Your task to perform on an android device: toggle airplane mode Image 0: 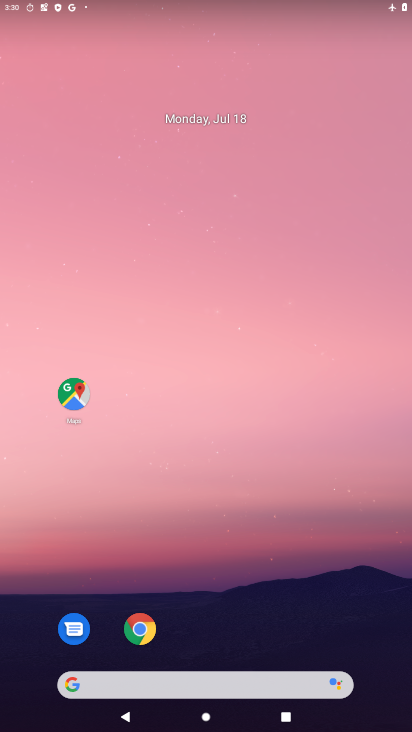
Step 0: drag from (171, 664) to (138, 96)
Your task to perform on an android device: toggle airplane mode Image 1: 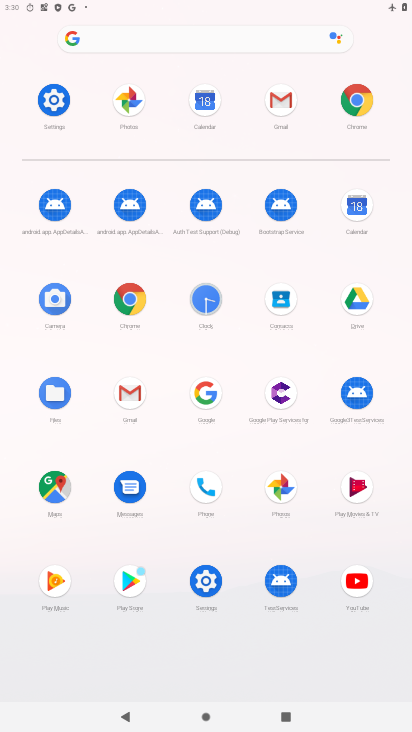
Step 1: click (62, 95)
Your task to perform on an android device: toggle airplane mode Image 2: 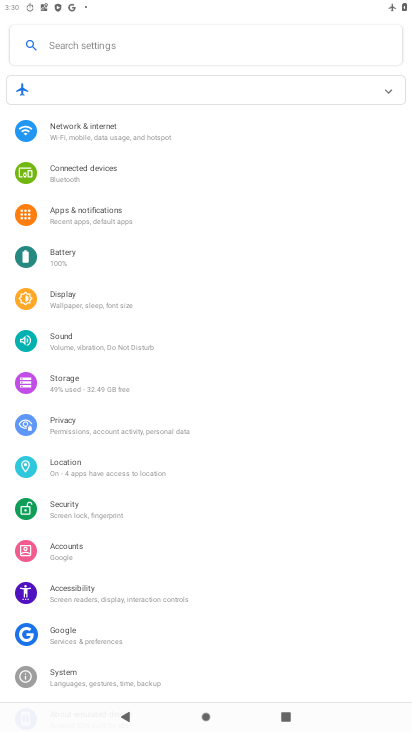
Step 2: click (102, 131)
Your task to perform on an android device: toggle airplane mode Image 3: 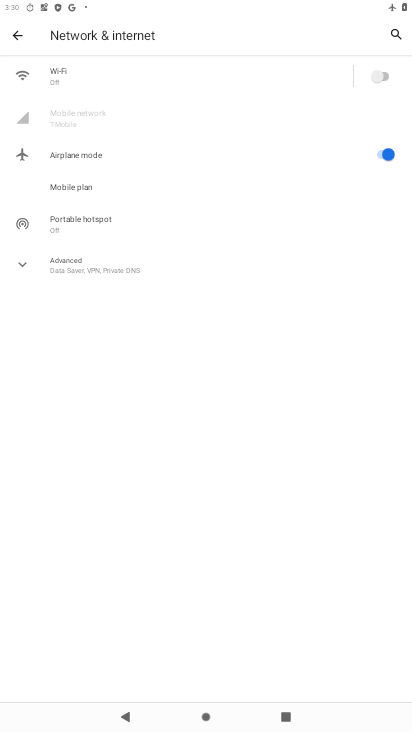
Step 3: click (381, 157)
Your task to perform on an android device: toggle airplane mode Image 4: 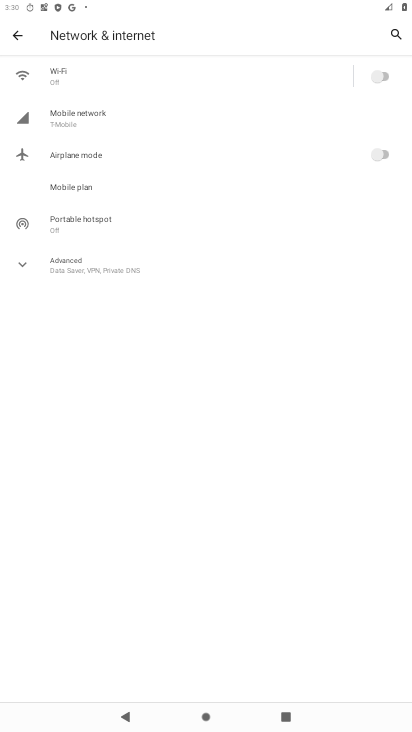
Step 4: task complete